Your task to perform on an android device: check battery use Image 0: 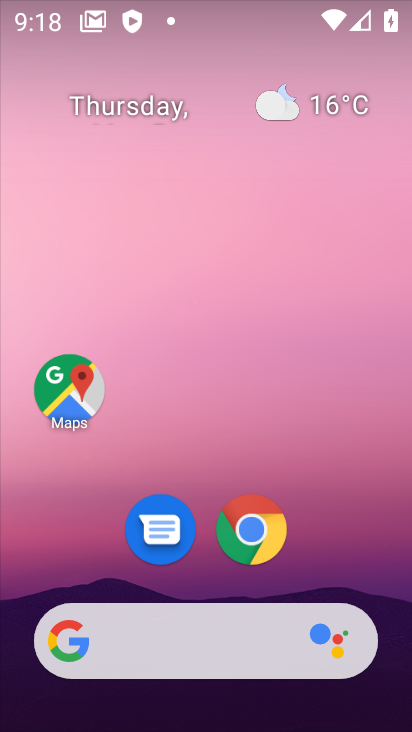
Step 0: drag from (346, 331) to (339, 187)
Your task to perform on an android device: check battery use Image 1: 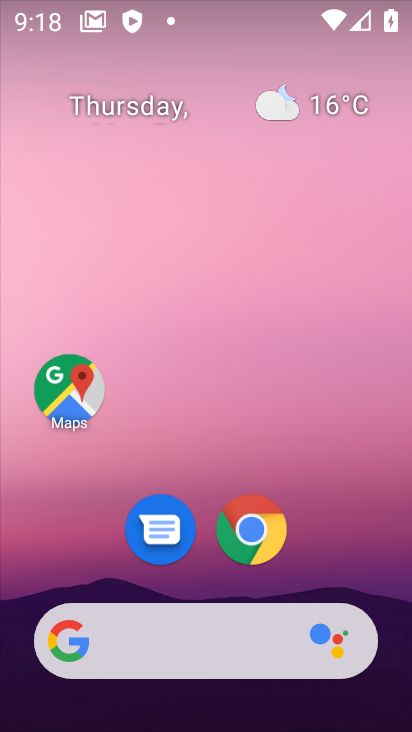
Step 1: drag from (389, 600) to (373, 71)
Your task to perform on an android device: check battery use Image 2: 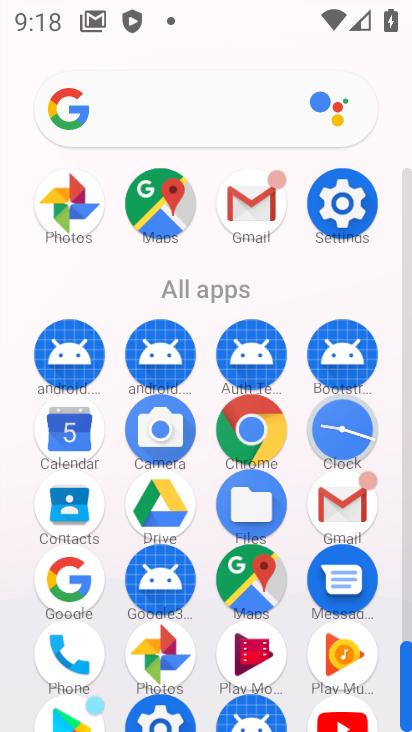
Step 2: click (332, 206)
Your task to perform on an android device: check battery use Image 3: 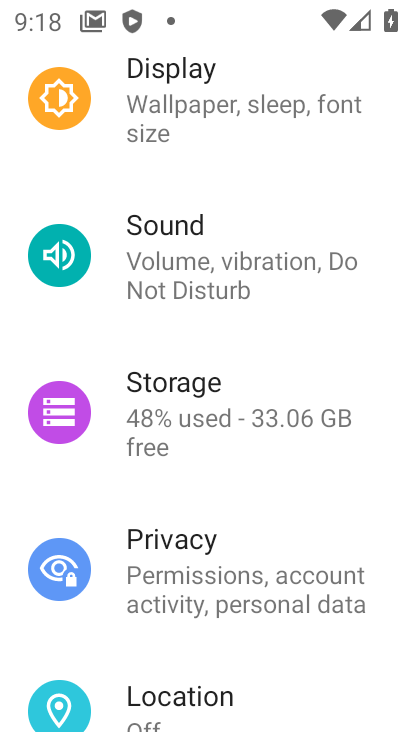
Step 3: drag from (309, 111) to (323, 548)
Your task to perform on an android device: check battery use Image 4: 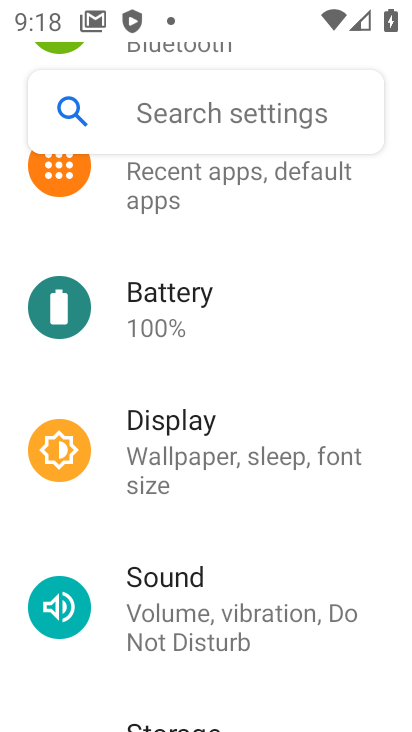
Step 4: click (157, 305)
Your task to perform on an android device: check battery use Image 5: 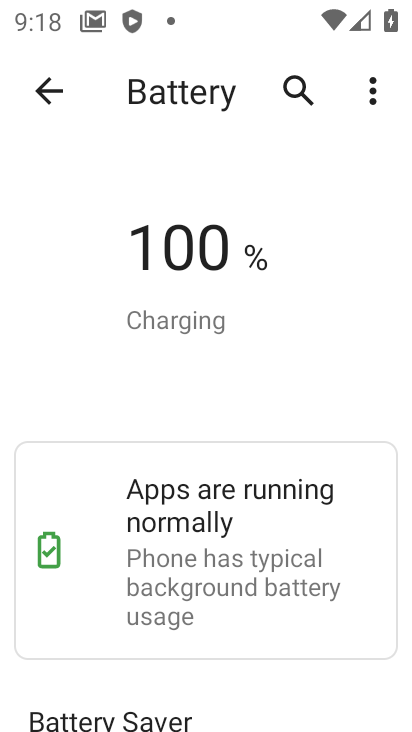
Step 5: click (370, 80)
Your task to perform on an android device: check battery use Image 6: 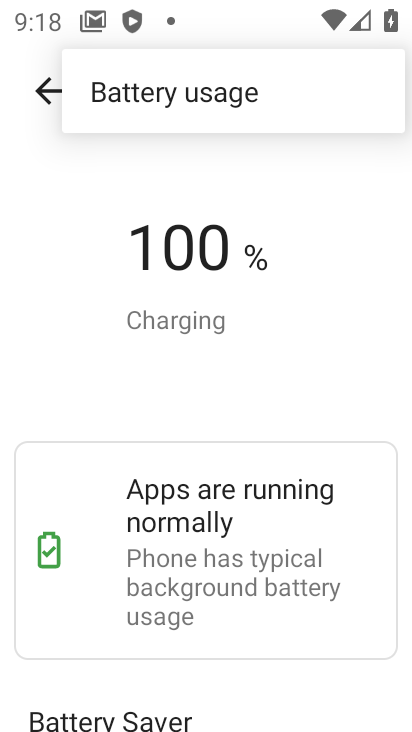
Step 6: click (279, 101)
Your task to perform on an android device: check battery use Image 7: 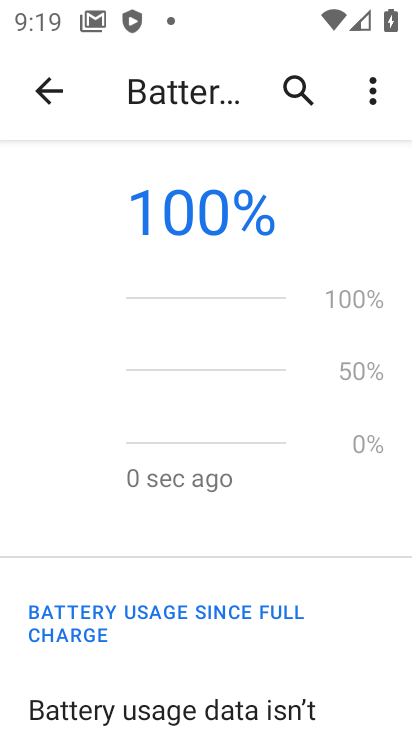
Step 7: task complete